Your task to perform on an android device: Is it going to rain this weekend? Image 0: 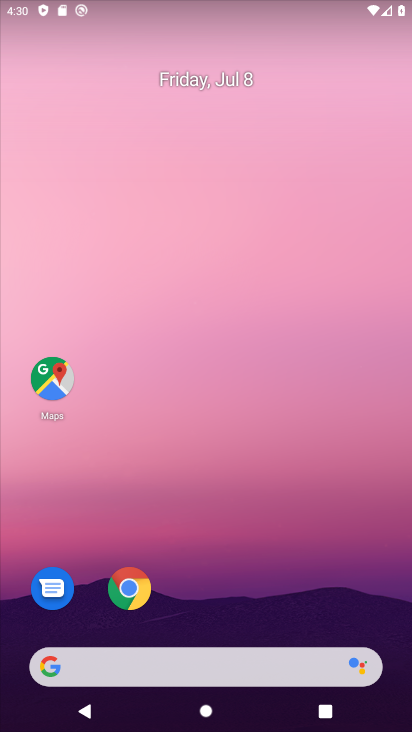
Step 0: click (156, 662)
Your task to perform on an android device: Is it going to rain this weekend? Image 1: 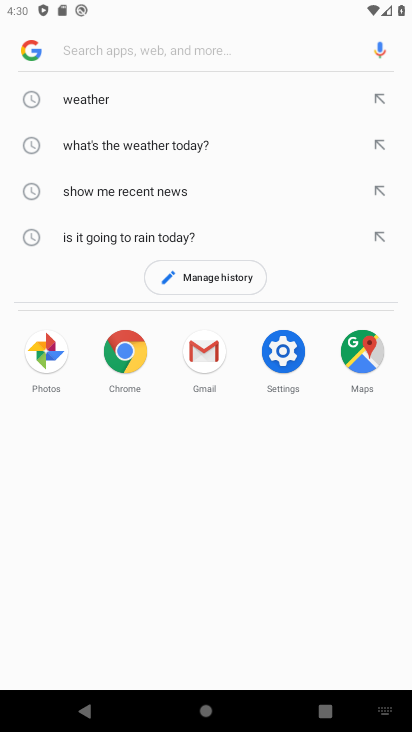
Step 1: click (71, 44)
Your task to perform on an android device: Is it going to rain this weekend? Image 2: 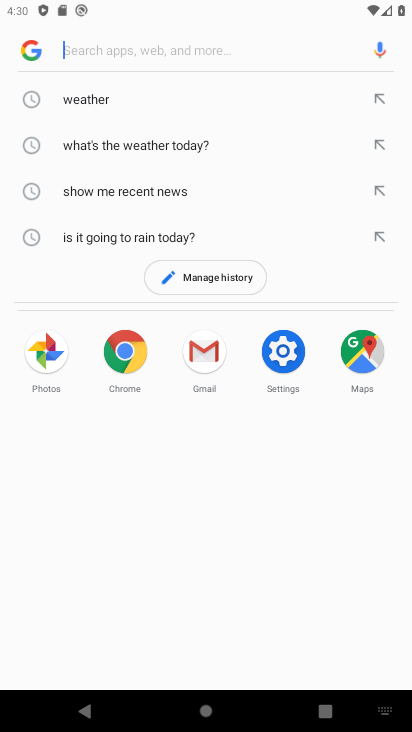
Step 2: type "Is it going to rain this weekend?"
Your task to perform on an android device: Is it going to rain this weekend? Image 3: 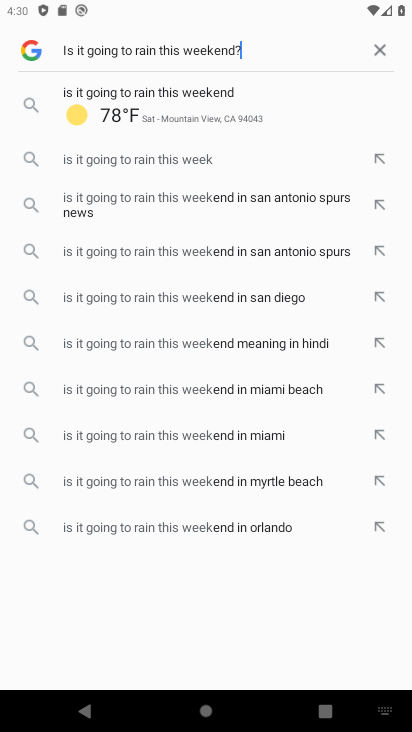
Step 3: press enter
Your task to perform on an android device: Is it going to rain this weekend? Image 4: 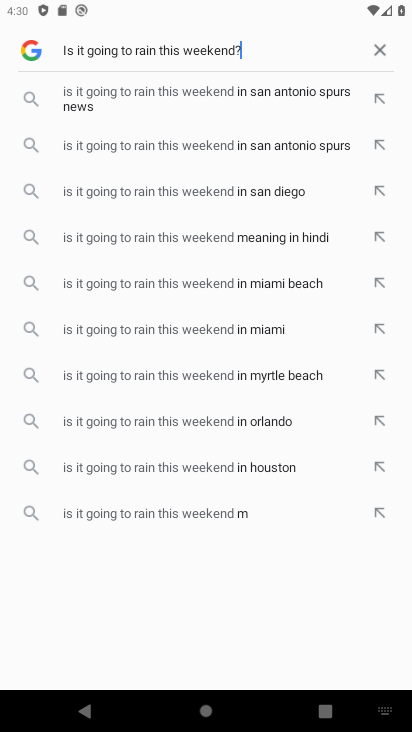
Step 4: type ""
Your task to perform on an android device: Is it going to rain this weekend? Image 5: 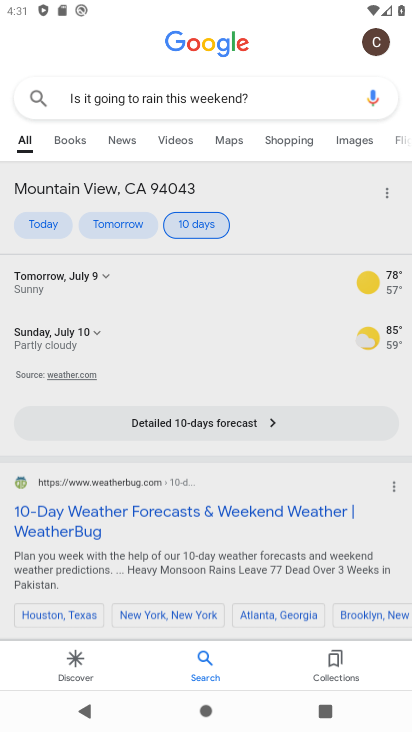
Step 5: task complete